Your task to perform on an android device: open app "Viber Messenger" (install if not already installed) and go to login screen Image 0: 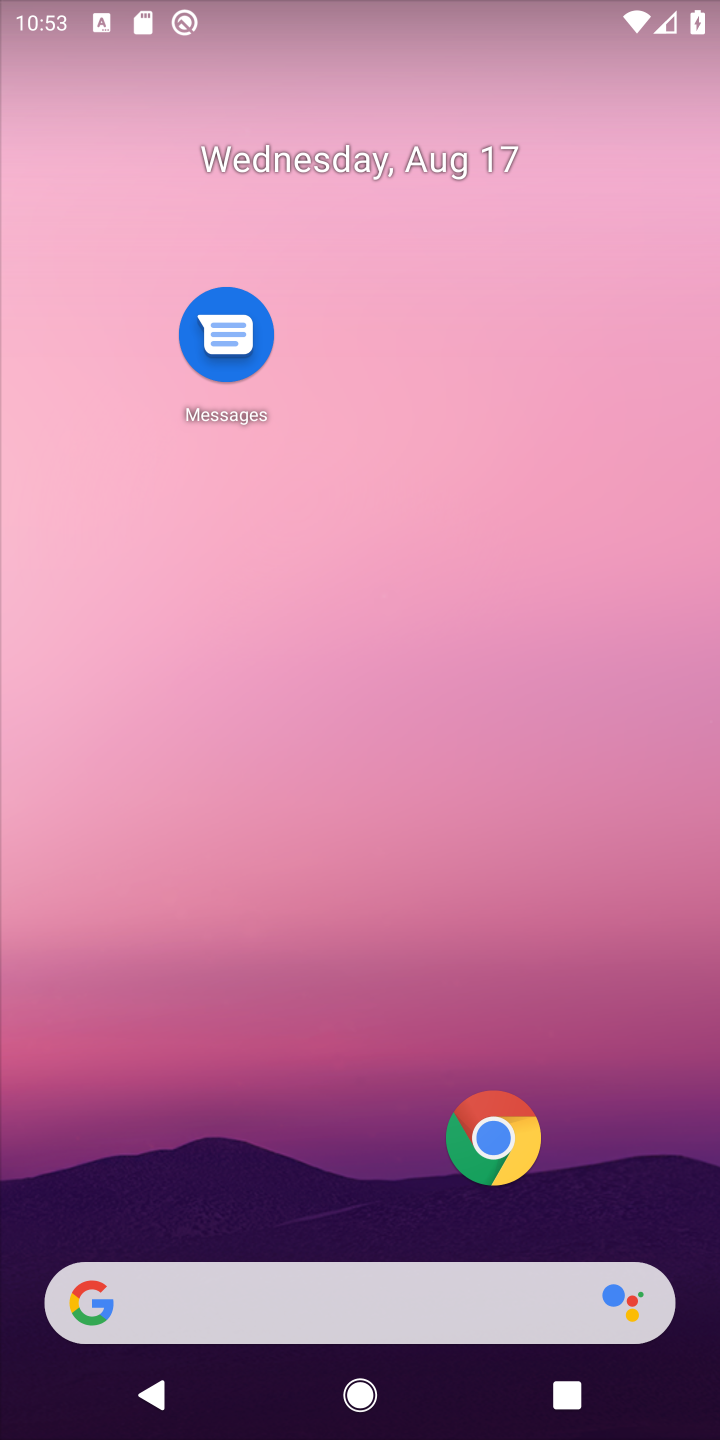
Step 0: drag from (202, 1171) to (238, 415)
Your task to perform on an android device: open app "Viber Messenger" (install if not already installed) and go to login screen Image 1: 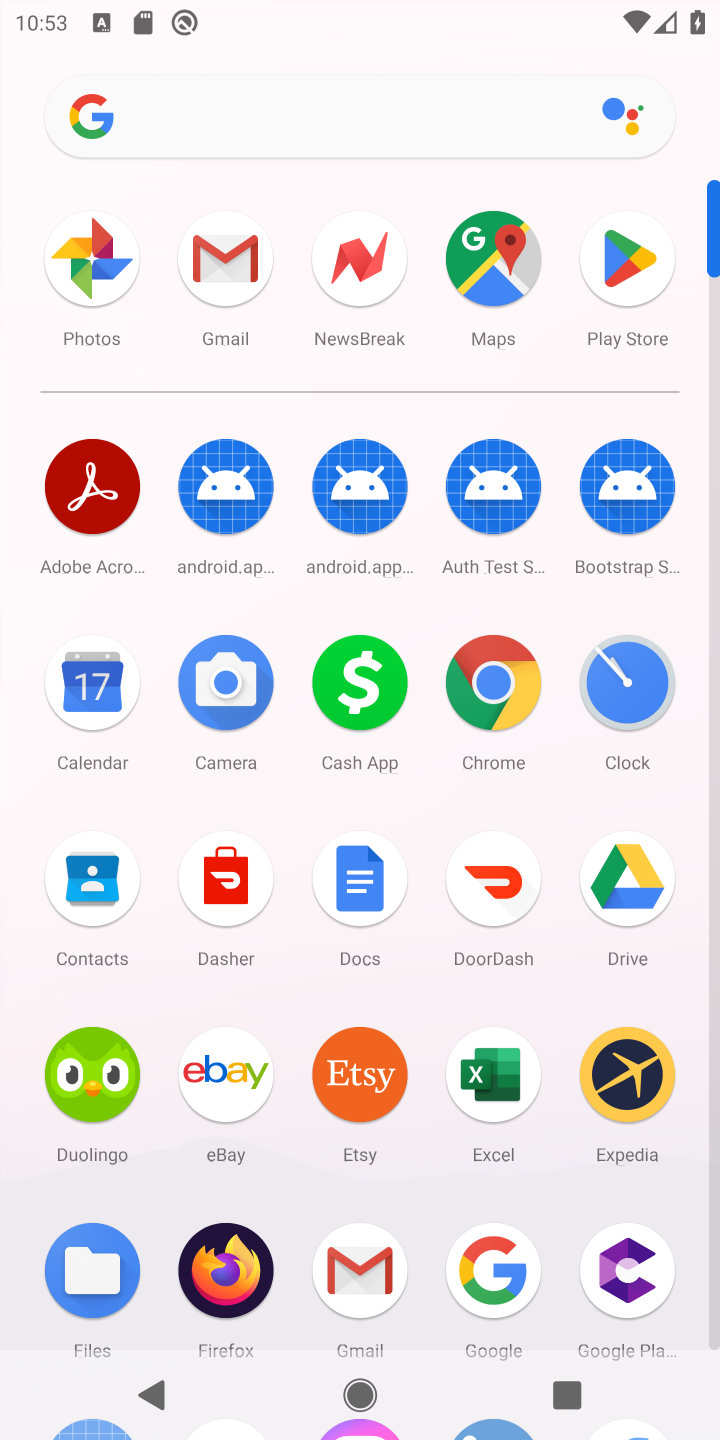
Step 1: click (621, 275)
Your task to perform on an android device: open app "Viber Messenger" (install if not already installed) and go to login screen Image 2: 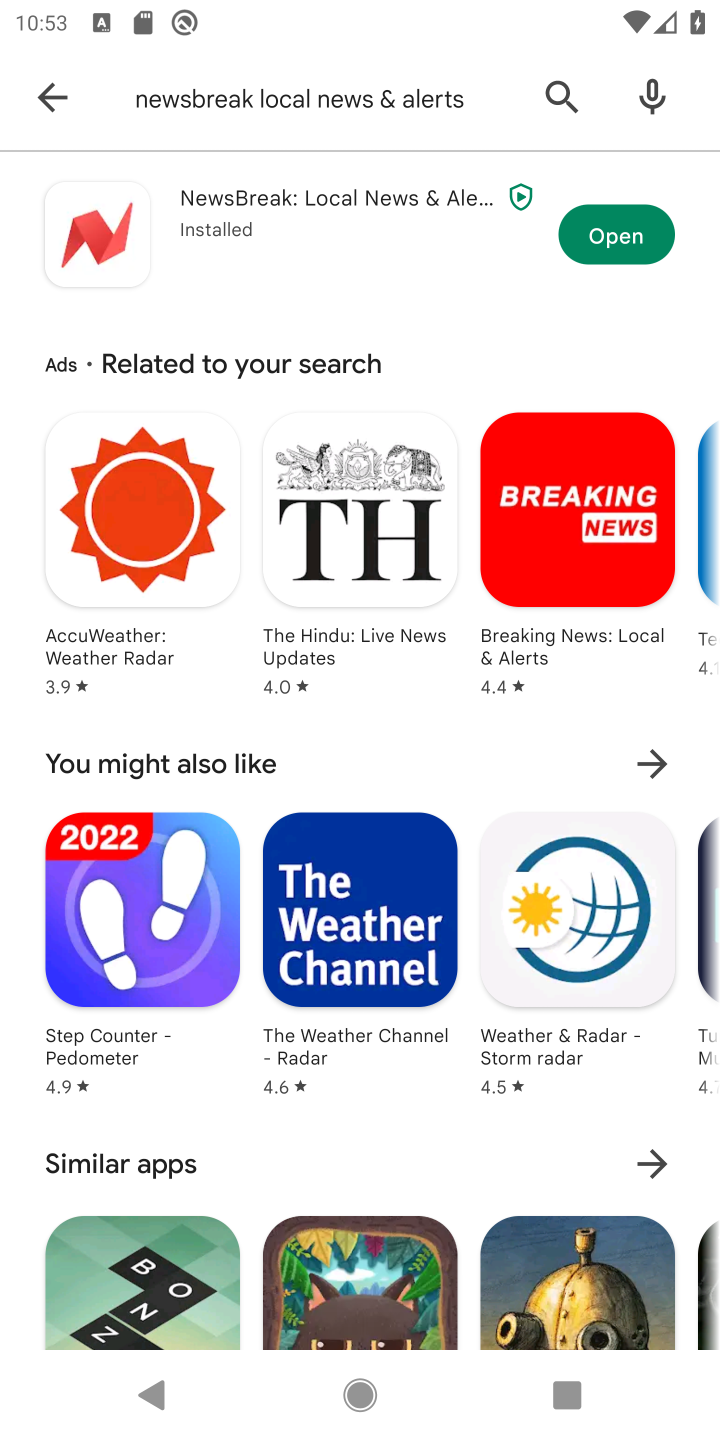
Step 2: click (44, 106)
Your task to perform on an android device: open app "Viber Messenger" (install if not already installed) and go to login screen Image 3: 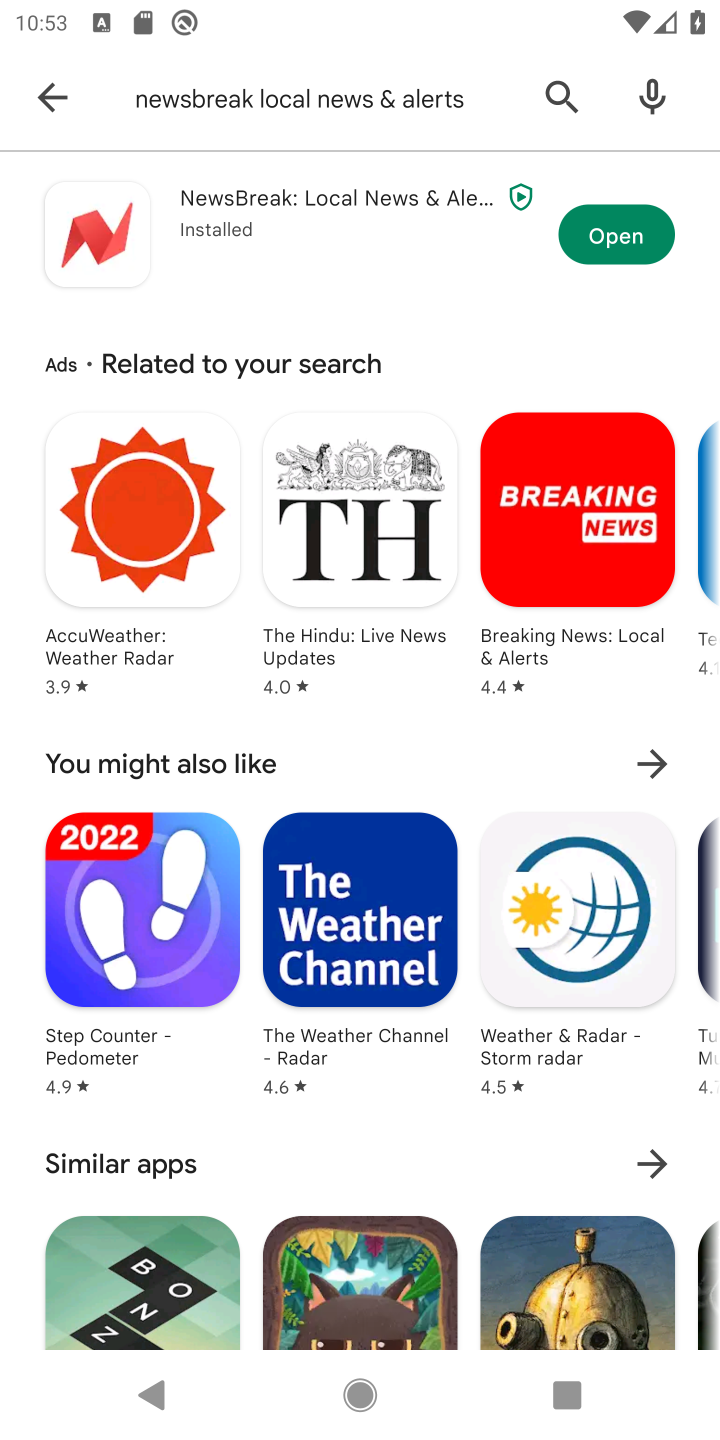
Step 3: click (44, 106)
Your task to perform on an android device: open app "Viber Messenger" (install if not already installed) and go to login screen Image 4: 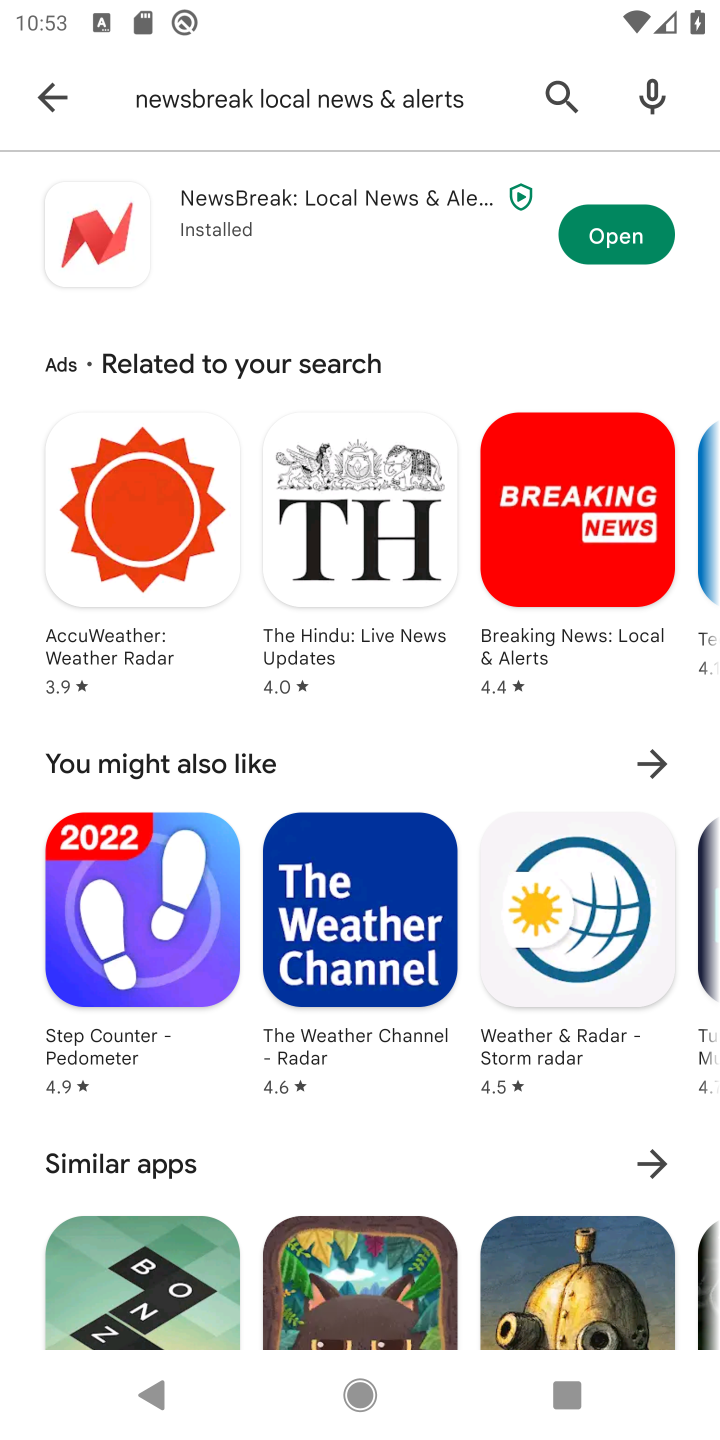
Step 4: click (563, 85)
Your task to perform on an android device: open app "Viber Messenger" (install if not already installed) and go to login screen Image 5: 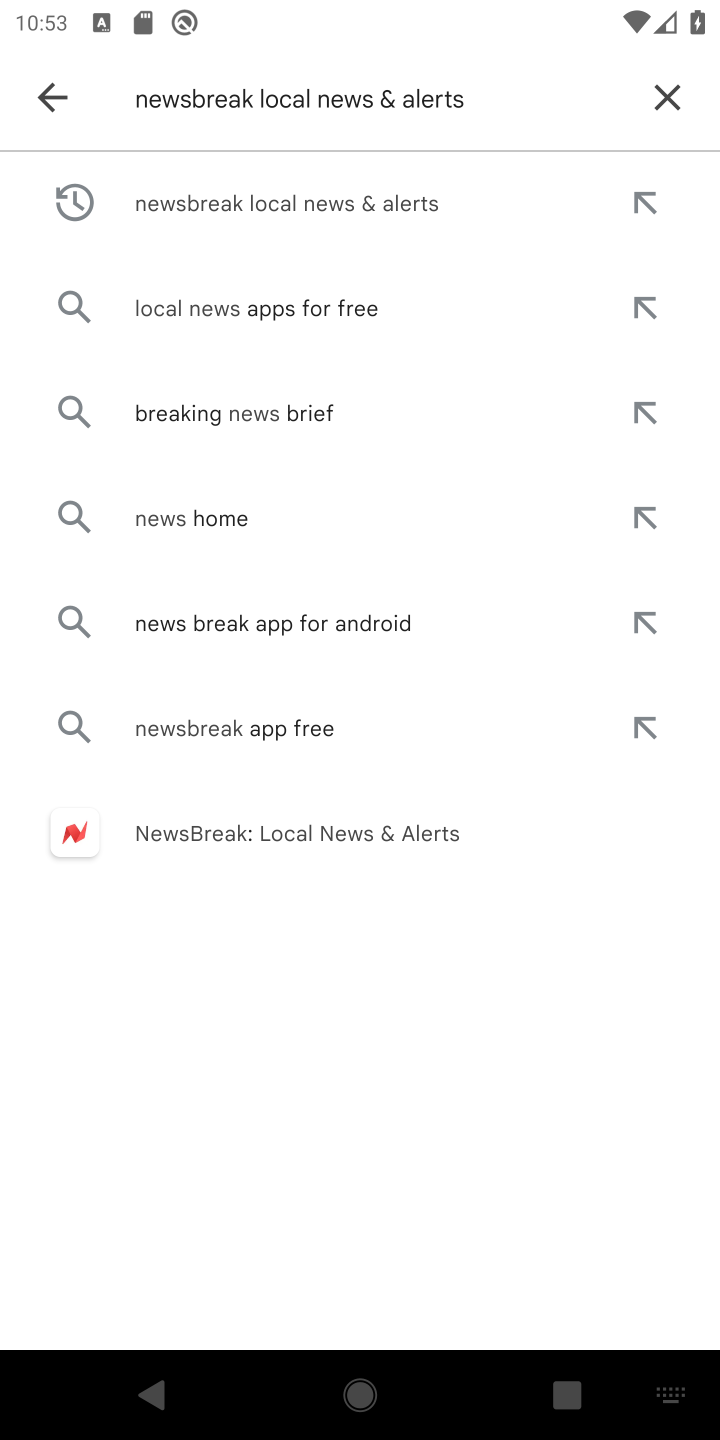
Step 5: click (682, 105)
Your task to perform on an android device: open app "Viber Messenger" (install if not already installed) and go to login screen Image 6: 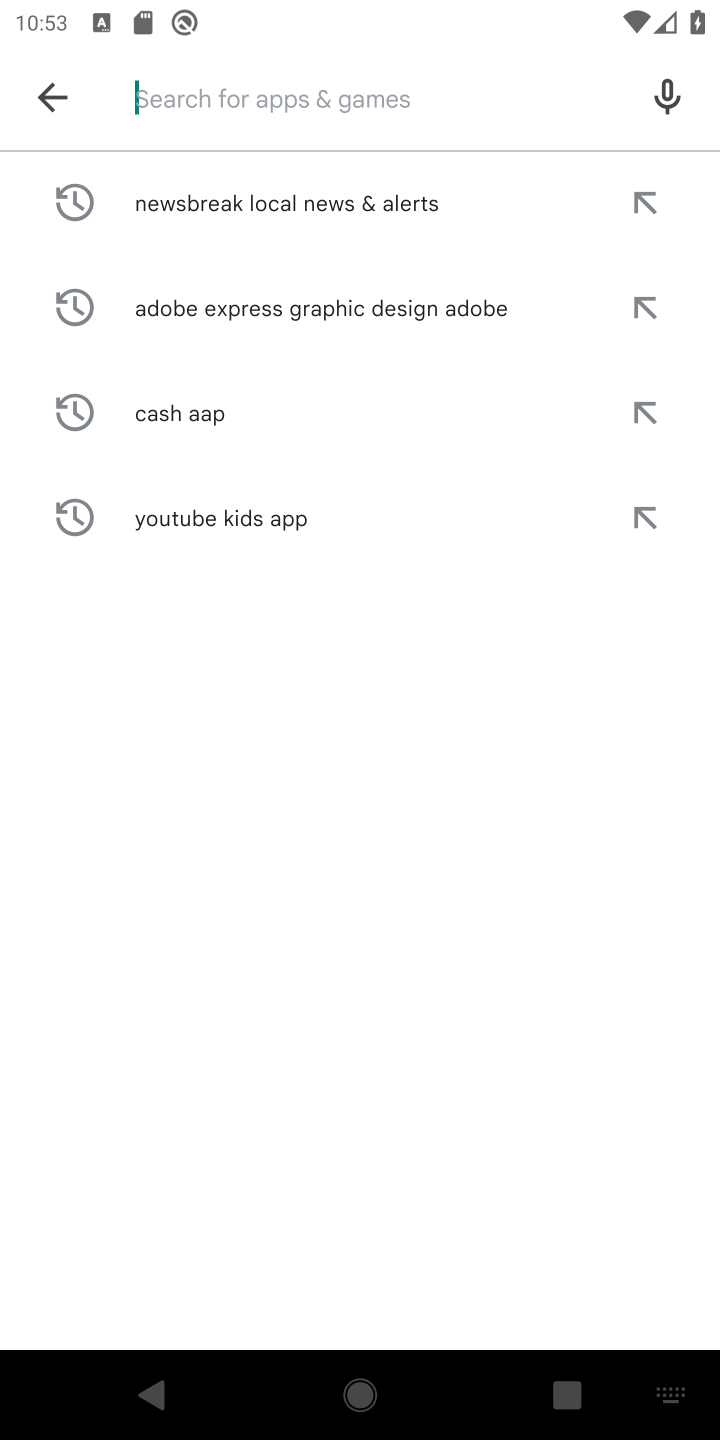
Step 6: click (320, 101)
Your task to perform on an android device: open app "Viber Messenger" (install if not already installed) and go to login screen Image 7: 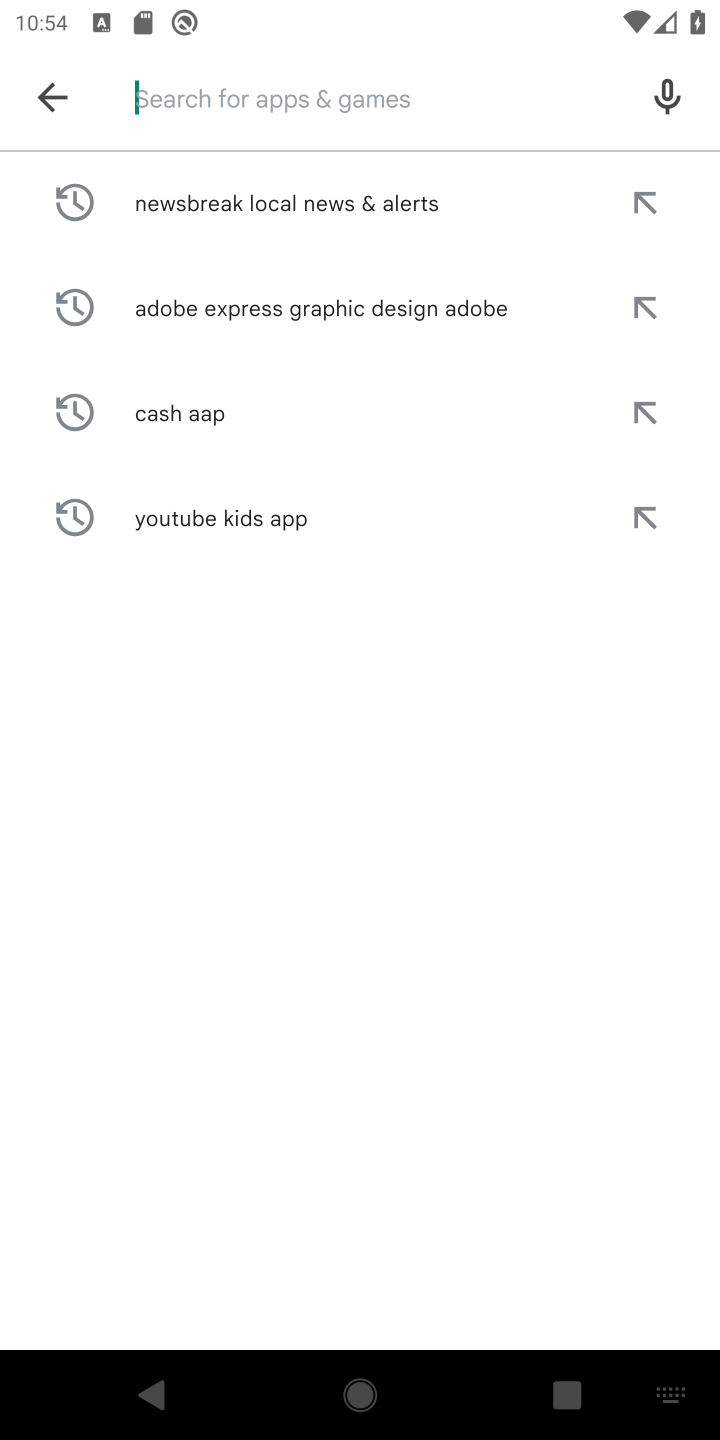
Step 7: type "Viber Messenge "
Your task to perform on an android device: open app "Viber Messenger" (install if not already installed) and go to login screen Image 8: 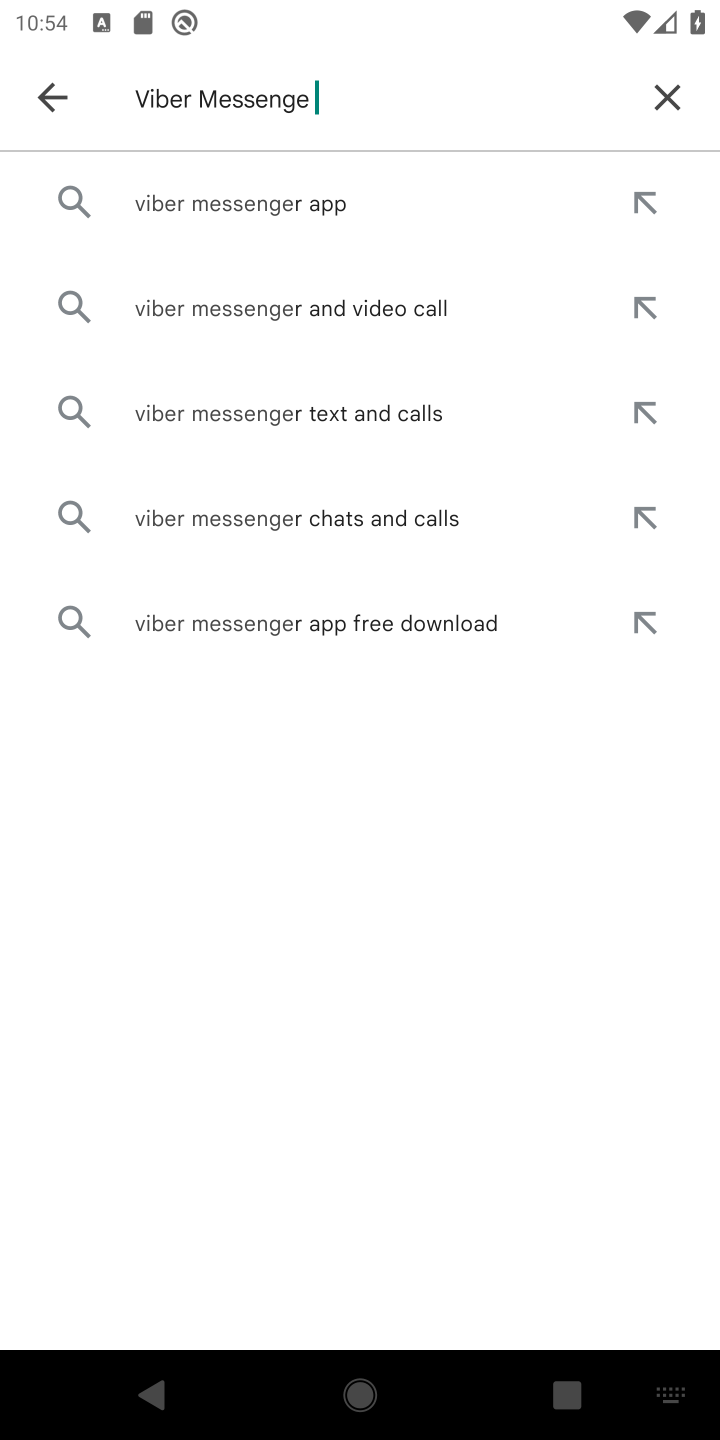
Step 8: click (232, 212)
Your task to perform on an android device: open app "Viber Messenger" (install if not already installed) and go to login screen Image 9: 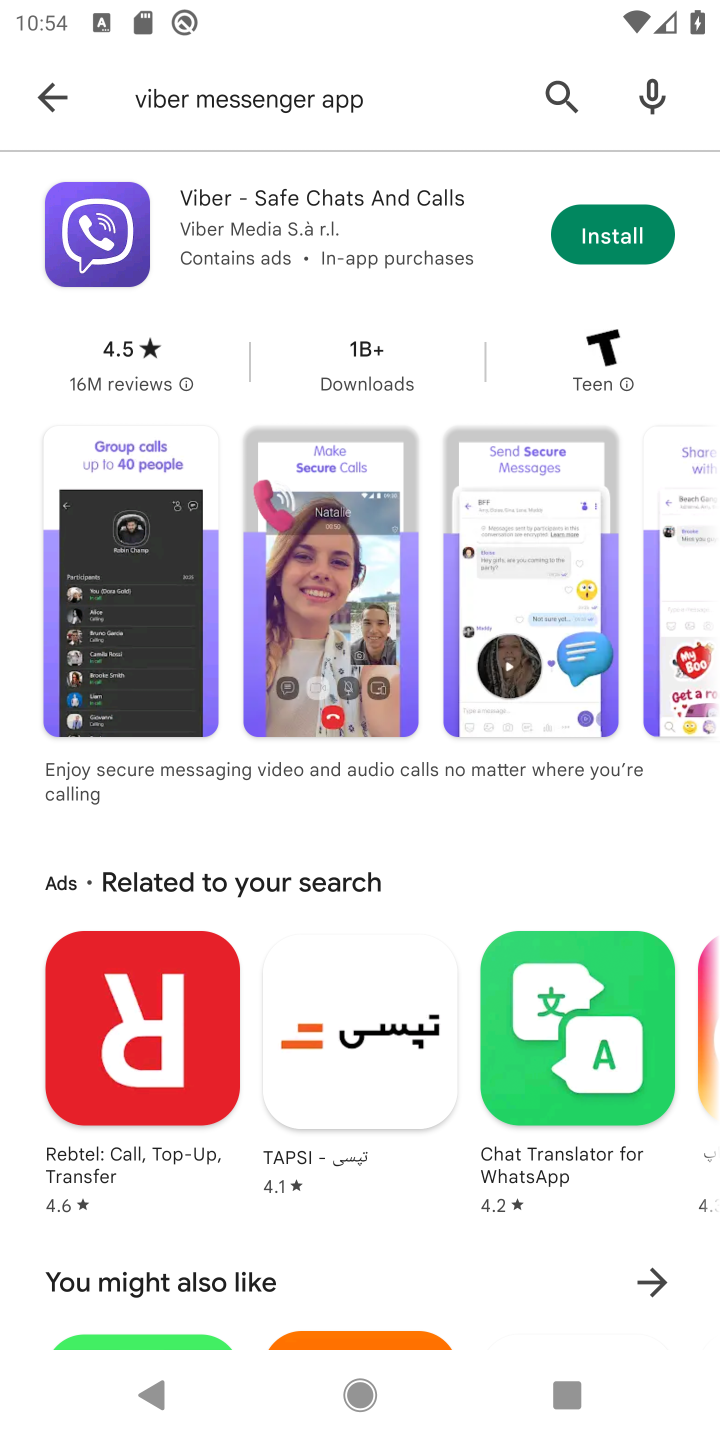
Step 9: click (577, 225)
Your task to perform on an android device: open app "Viber Messenger" (install if not already installed) and go to login screen Image 10: 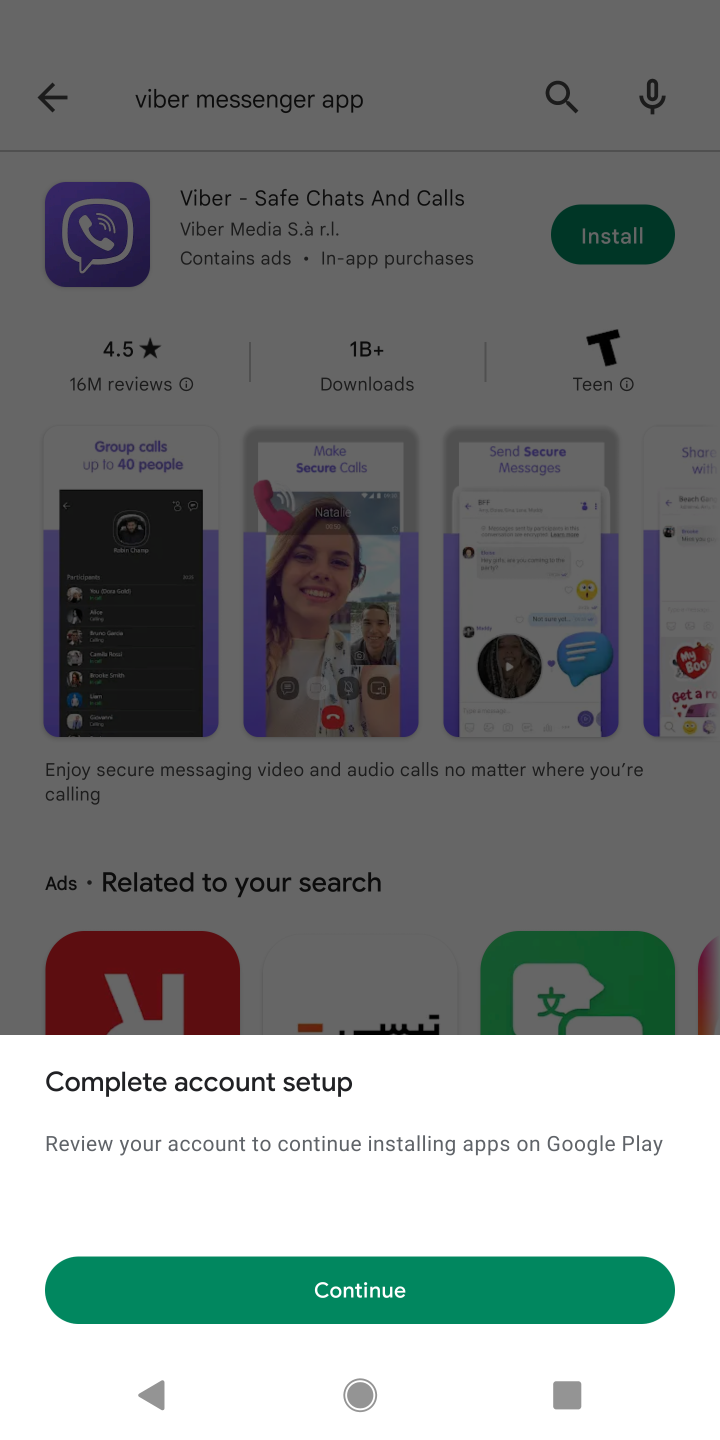
Step 10: task complete